Your task to perform on an android device: Open the calendar app, open the side menu, and click the "Day" option Image 0: 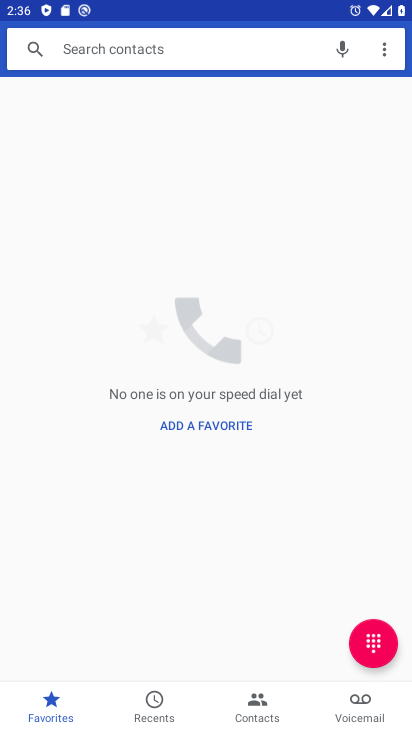
Step 0: press home button
Your task to perform on an android device: Open the calendar app, open the side menu, and click the "Day" option Image 1: 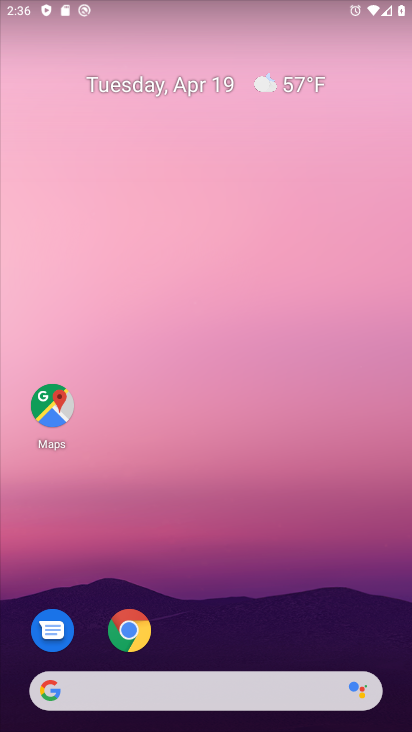
Step 1: drag from (175, 529) to (230, 34)
Your task to perform on an android device: Open the calendar app, open the side menu, and click the "Day" option Image 2: 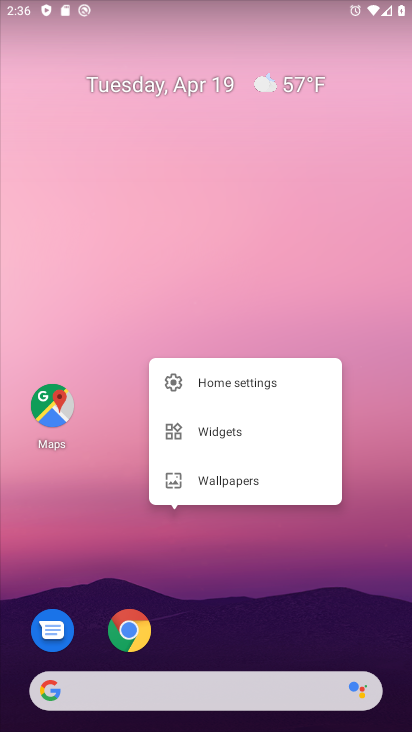
Step 2: click (222, 278)
Your task to perform on an android device: Open the calendar app, open the side menu, and click the "Day" option Image 3: 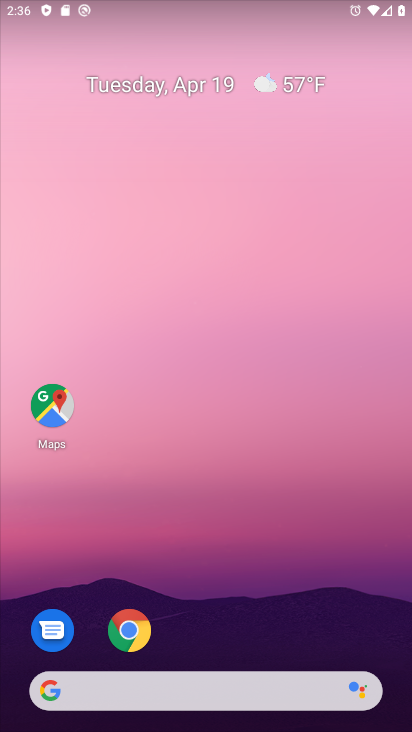
Step 3: drag from (234, 543) to (225, 3)
Your task to perform on an android device: Open the calendar app, open the side menu, and click the "Day" option Image 4: 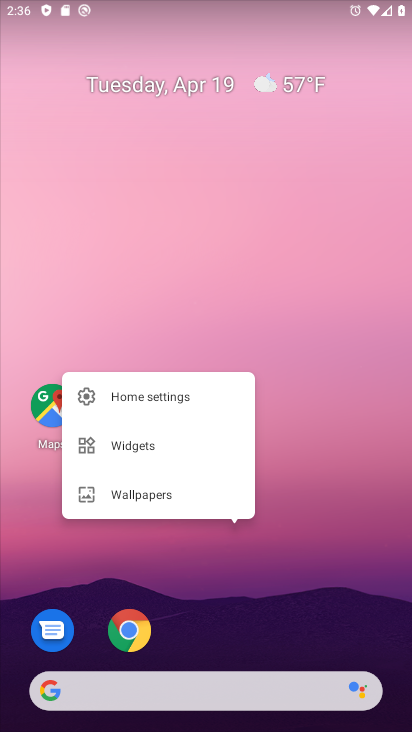
Step 4: click (254, 617)
Your task to perform on an android device: Open the calendar app, open the side menu, and click the "Day" option Image 5: 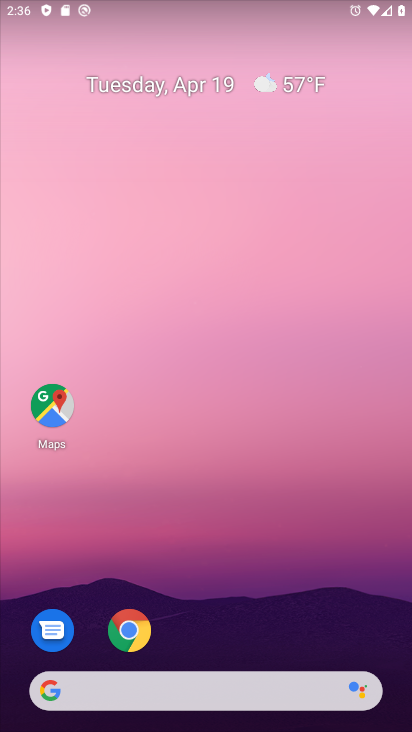
Step 5: drag from (221, 572) to (369, 20)
Your task to perform on an android device: Open the calendar app, open the side menu, and click the "Day" option Image 6: 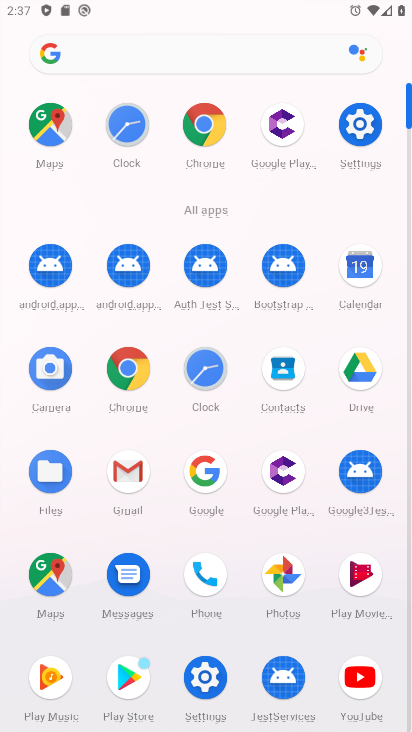
Step 6: click (359, 269)
Your task to perform on an android device: Open the calendar app, open the side menu, and click the "Day" option Image 7: 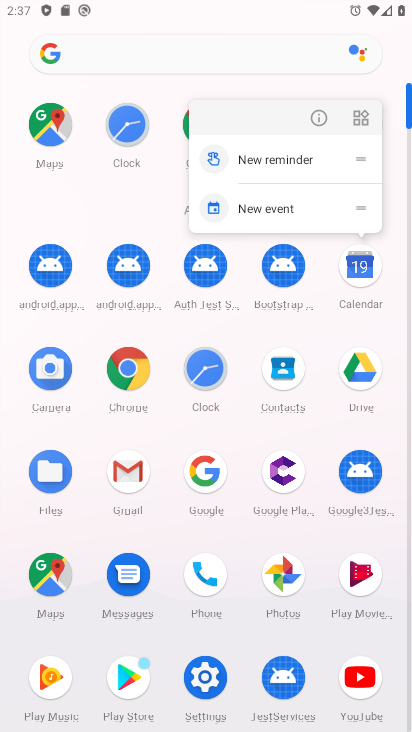
Step 7: click (361, 270)
Your task to perform on an android device: Open the calendar app, open the side menu, and click the "Day" option Image 8: 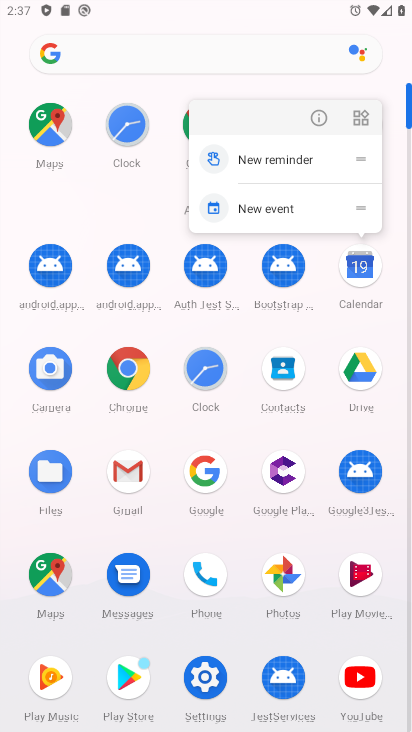
Step 8: click (361, 270)
Your task to perform on an android device: Open the calendar app, open the side menu, and click the "Day" option Image 9: 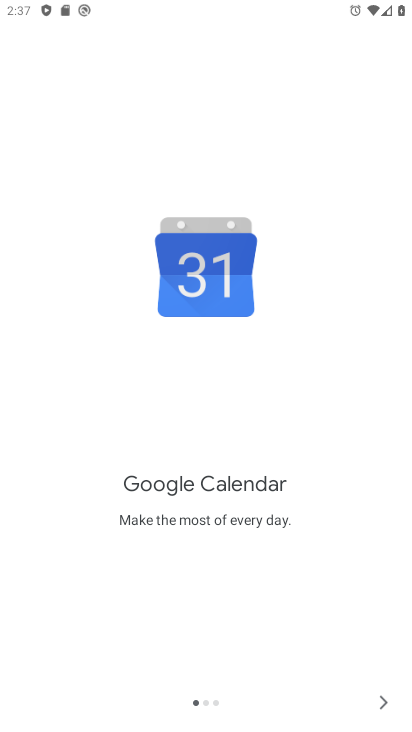
Step 9: click (380, 704)
Your task to perform on an android device: Open the calendar app, open the side menu, and click the "Day" option Image 10: 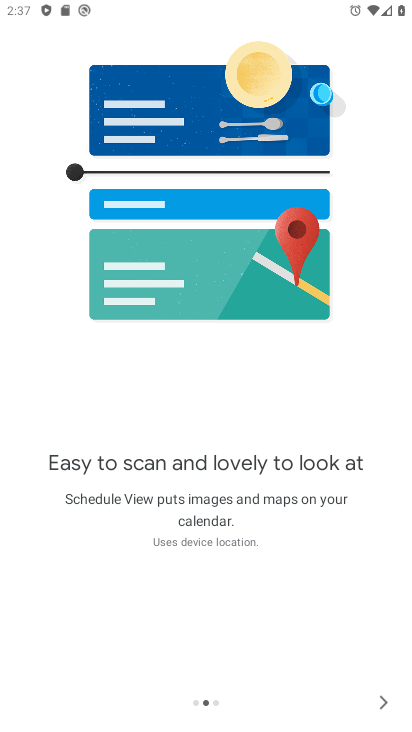
Step 10: click (380, 704)
Your task to perform on an android device: Open the calendar app, open the side menu, and click the "Day" option Image 11: 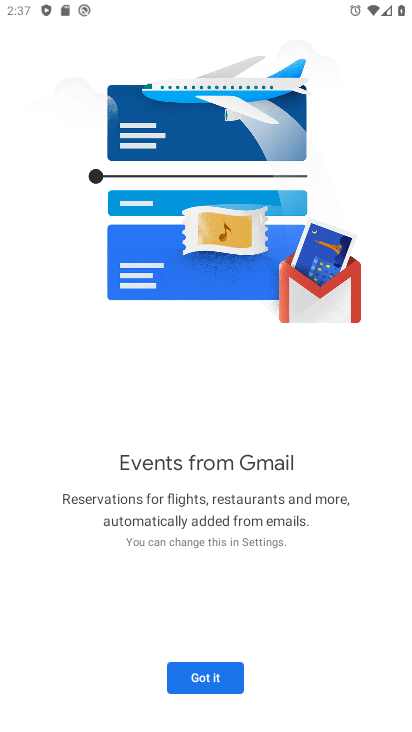
Step 11: click (214, 675)
Your task to perform on an android device: Open the calendar app, open the side menu, and click the "Day" option Image 12: 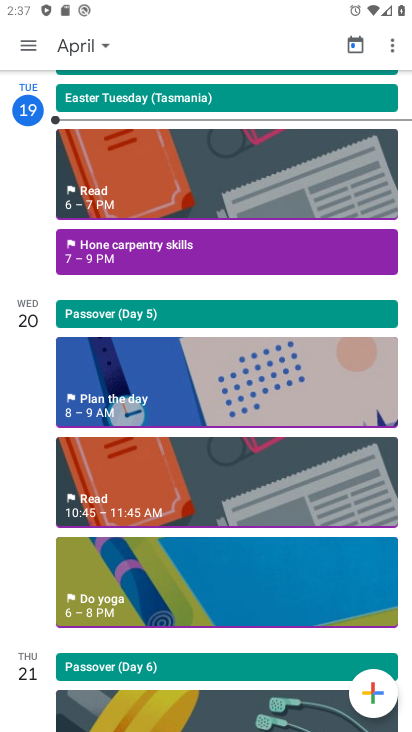
Step 12: click (24, 45)
Your task to perform on an android device: Open the calendar app, open the side menu, and click the "Day" option Image 13: 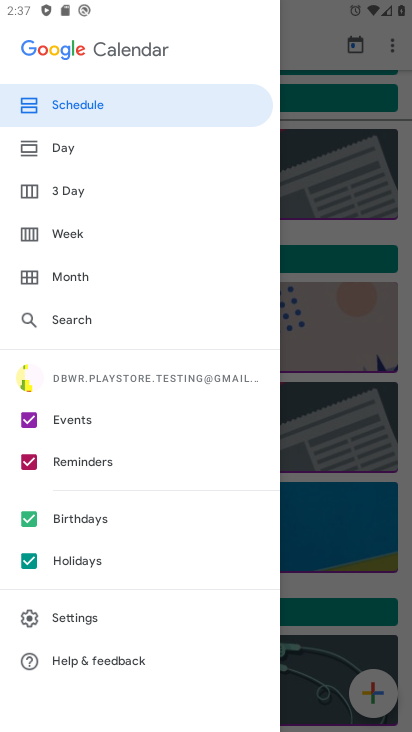
Step 13: click (56, 149)
Your task to perform on an android device: Open the calendar app, open the side menu, and click the "Day" option Image 14: 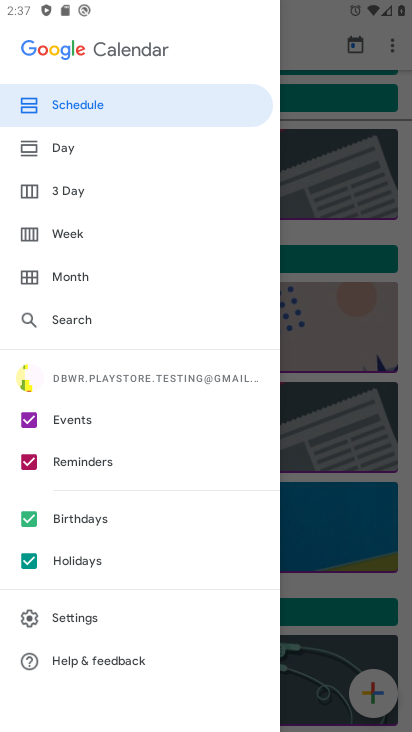
Step 14: click (65, 149)
Your task to perform on an android device: Open the calendar app, open the side menu, and click the "Day" option Image 15: 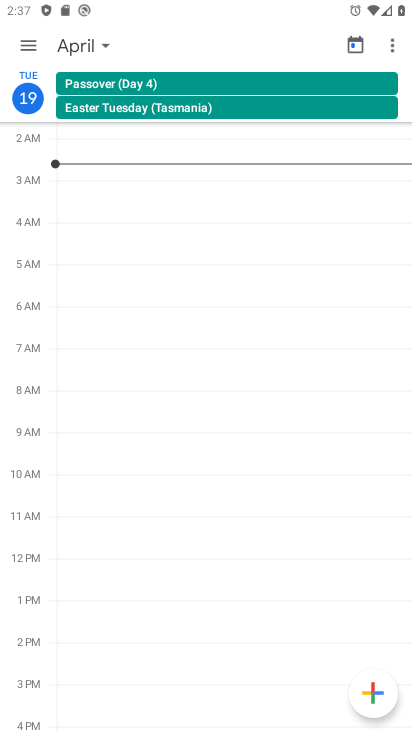
Step 15: task complete